Your task to perform on an android device: open app "Adobe Express: Graphic Design" Image 0: 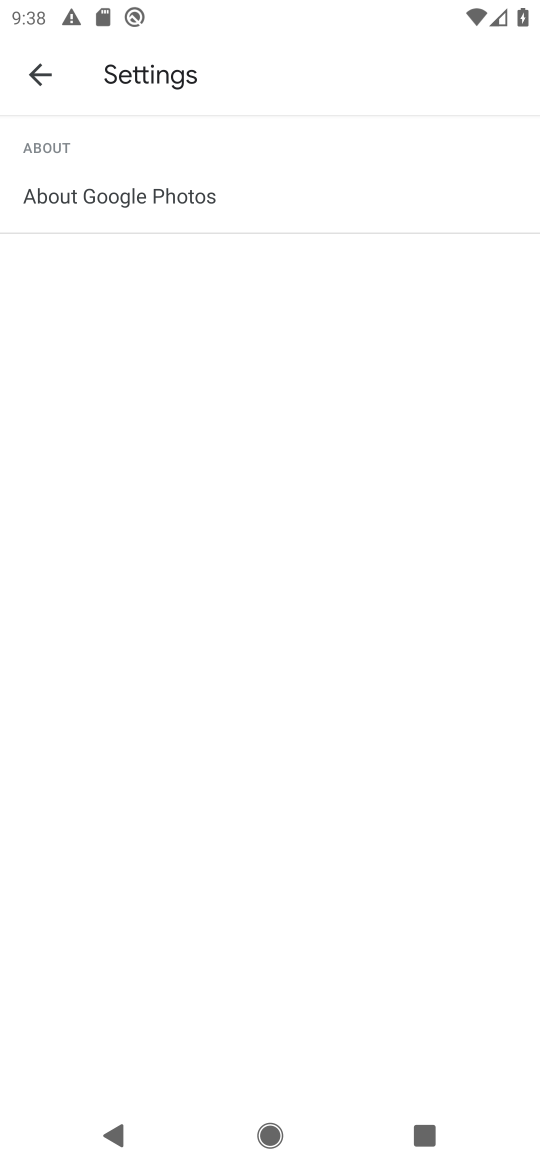
Step 0: click (41, 60)
Your task to perform on an android device: open app "Adobe Express: Graphic Design" Image 1: 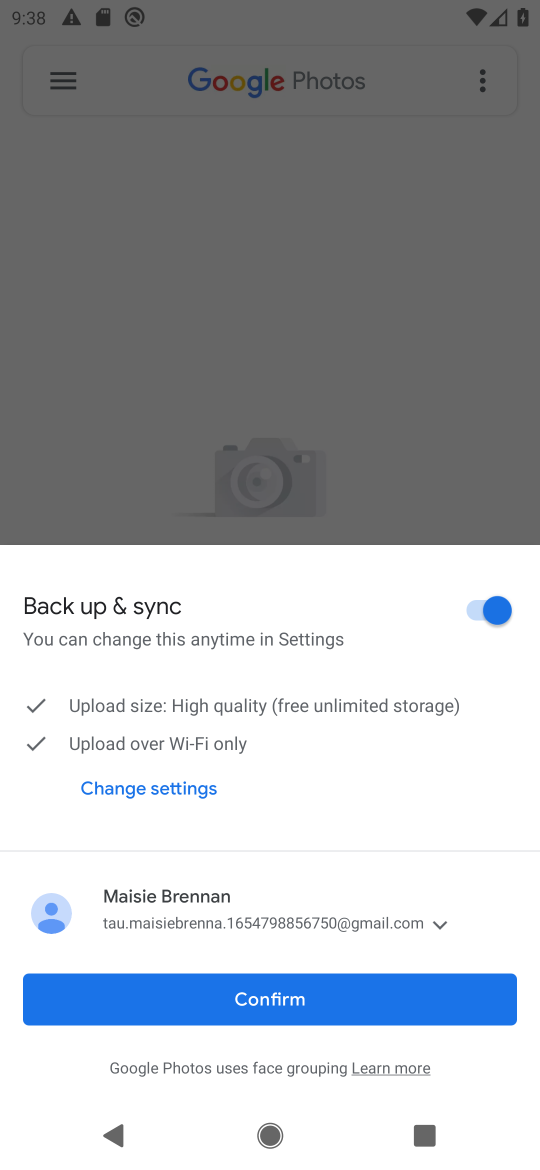
Step 1: press home button
Your task to perform on an android device: open app "Adobe Express: Graphic Design" Image 2: 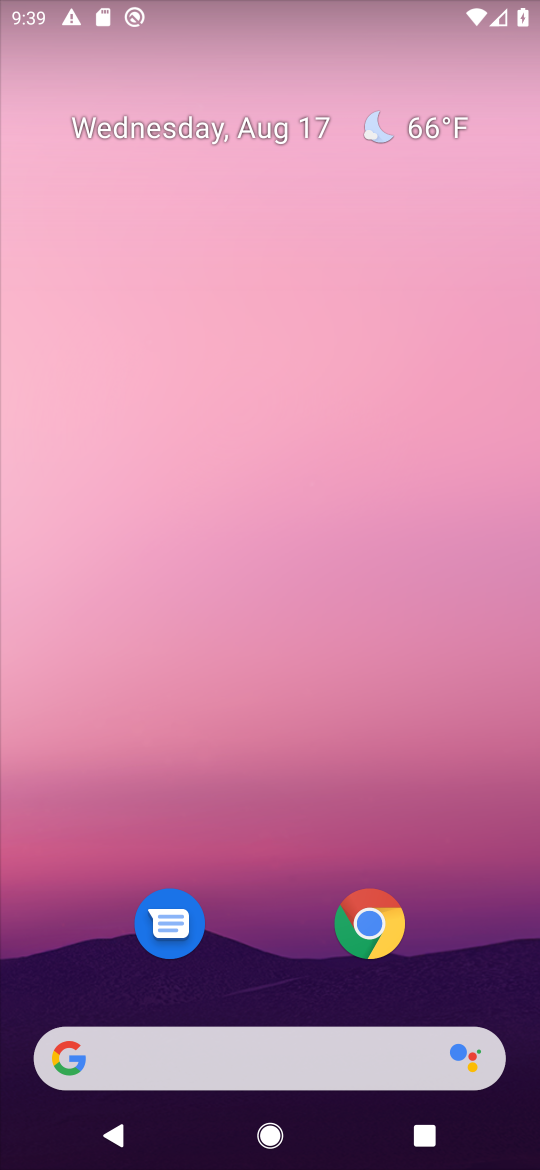
Step 2: drag from (295, 763) to (285, 220)
Your task to perform on an android device: open app "Adobe Express: Graphic Design" Image 3: 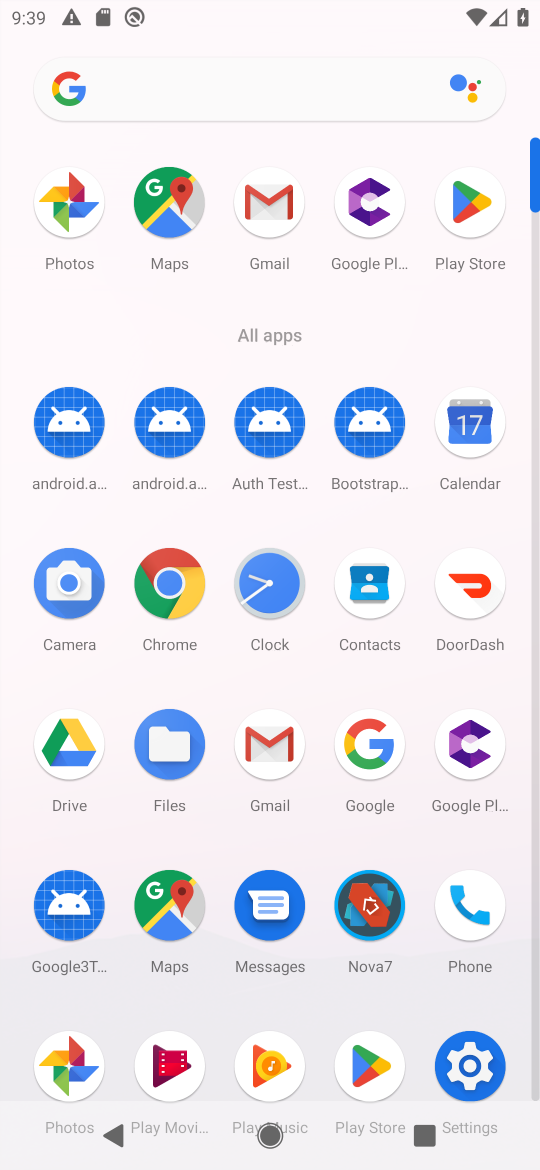
Step 3: click (376, 1083)
Your task to perform on an android device: open app "Adobe Express: Graphic Design" Image 4: 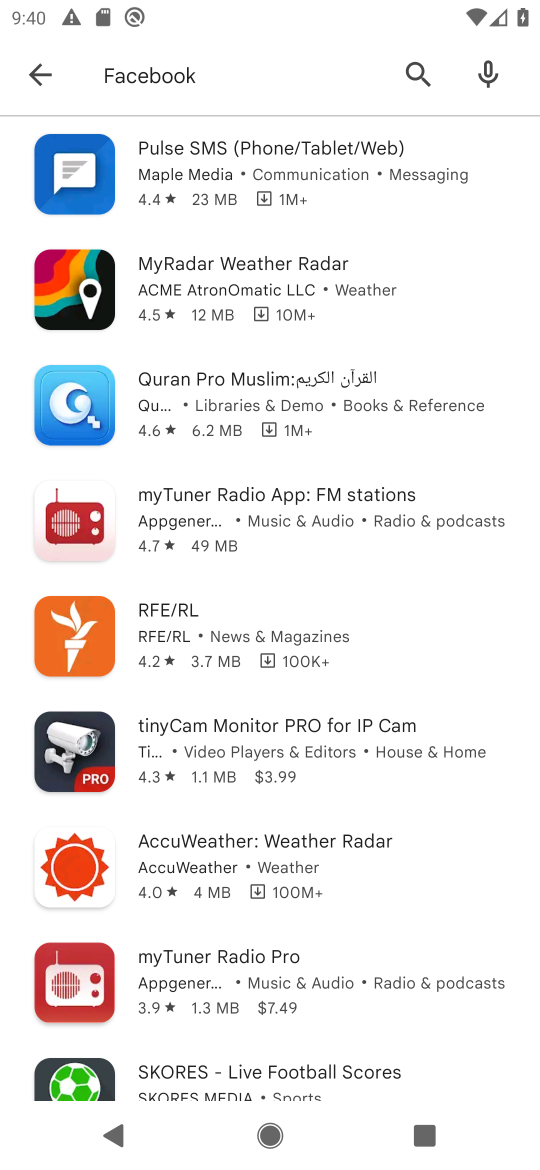
Step 4: click (412, 59)
Your task to perform on an android device: open app "Adobe Express: Graphic Design" Image 5: 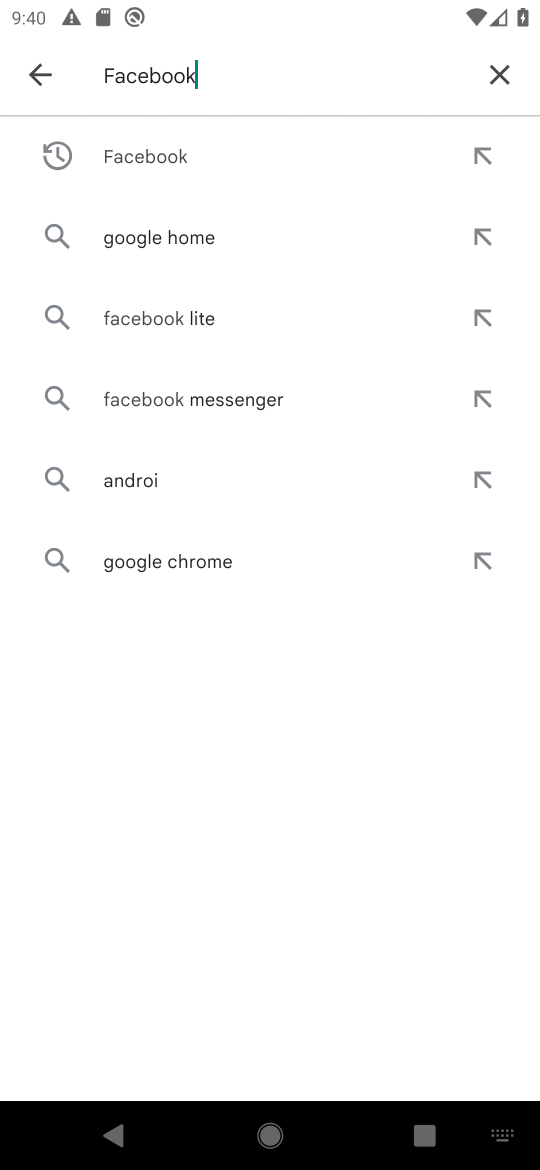
Step 5: click (508, 67)
Your task to perform on an android device: open app "Adobe Express: Graphic Design" Image 6: 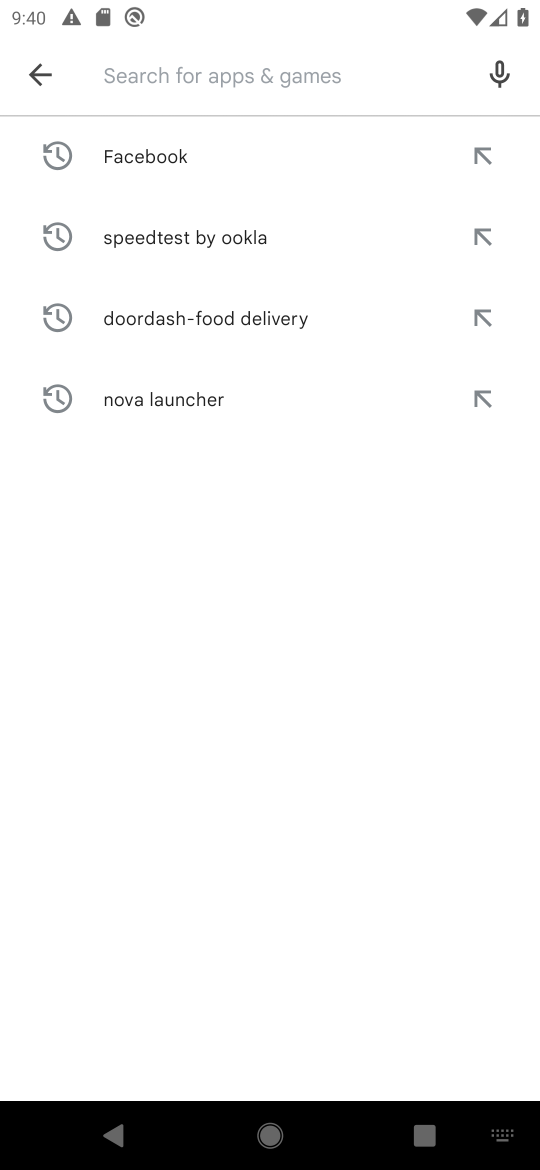
Step 6: type "adobe express"
Your task to perform on an android device: open app "Adobe Express: Graphic Design" Image 7: 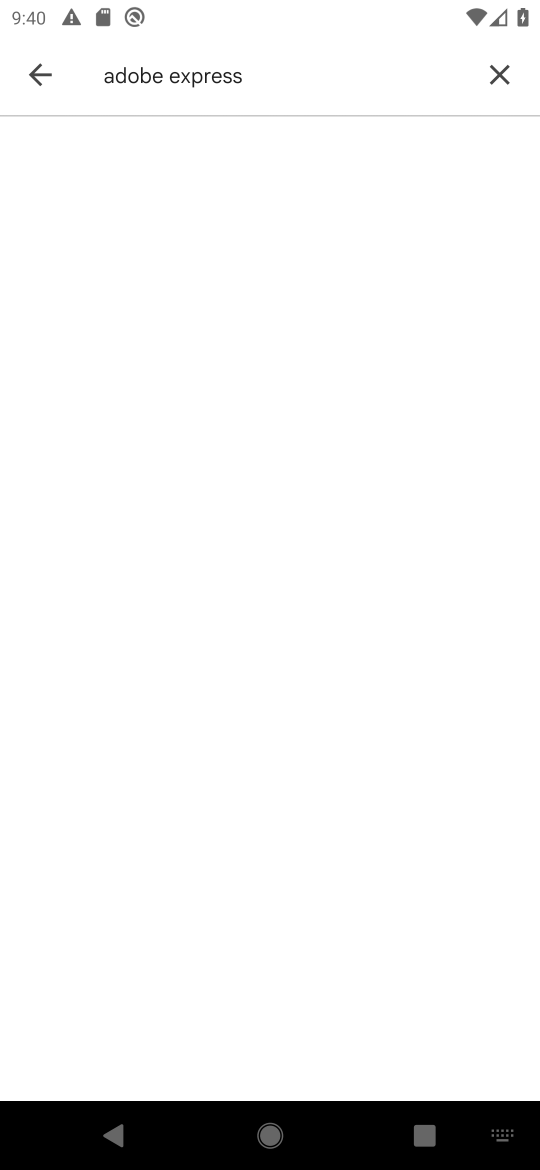
Step 7: press enter
Your task to perform on an android device: open app "Adobe Express: Graphic Design" Image 8: 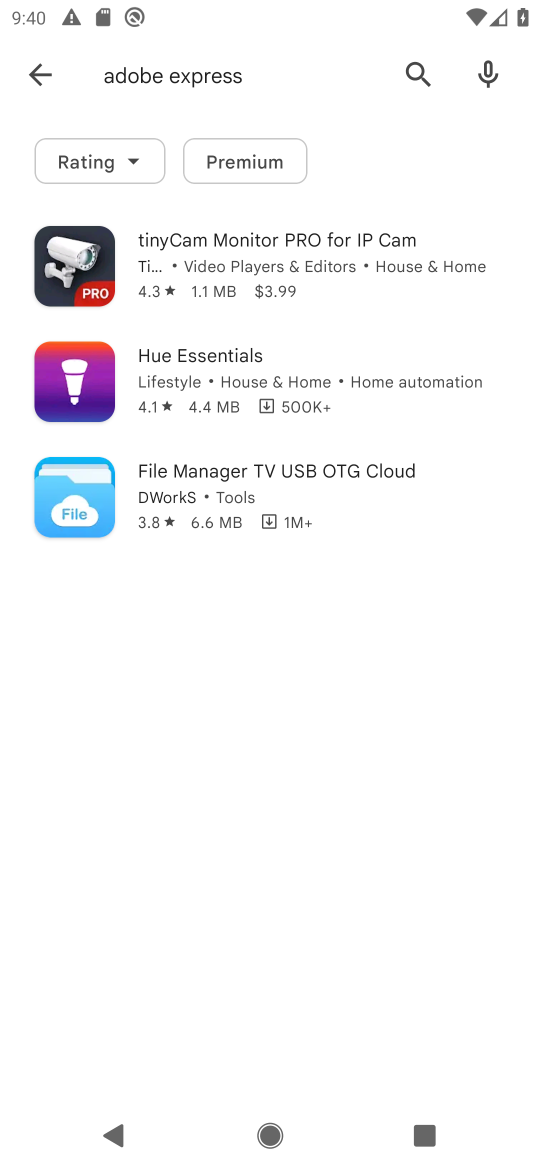
Step 8: task complete